Your task to perform on an android device: change notification settings in the gmail app Image 0: 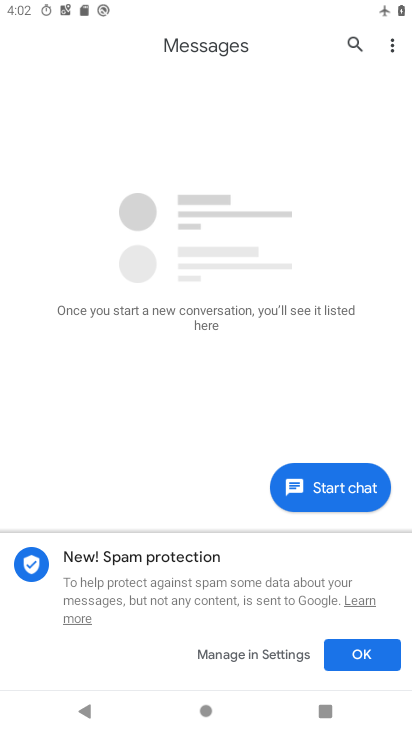
Step 0: press home button
Your task to perform on an android device: change notification settings in the gmail app Image 1: 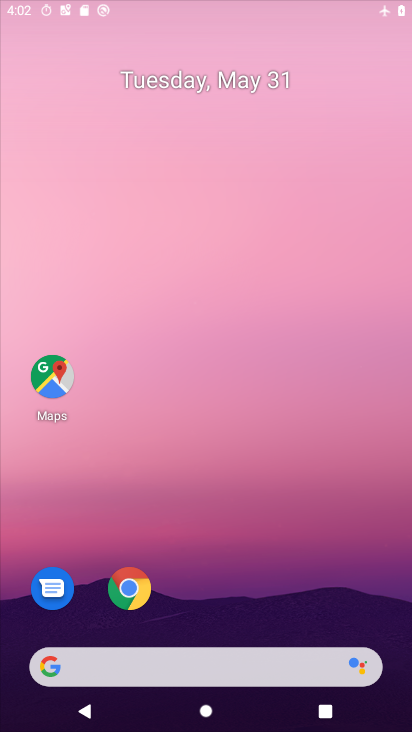
Step 1: drag from (172, 660) to (172, 361)
Your task to perform on an android device: change notification settings in the gmail app Image 2: 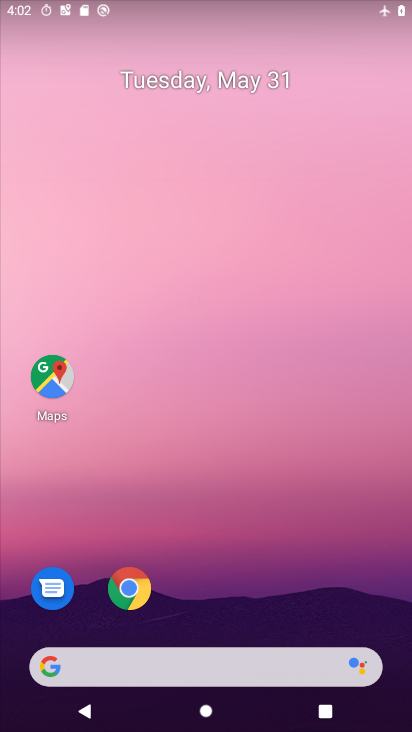
Step 2: drag from (266, 679) to (171, 94)
Your task to perform on an android device: change notification settings in the gmail app Image 3: 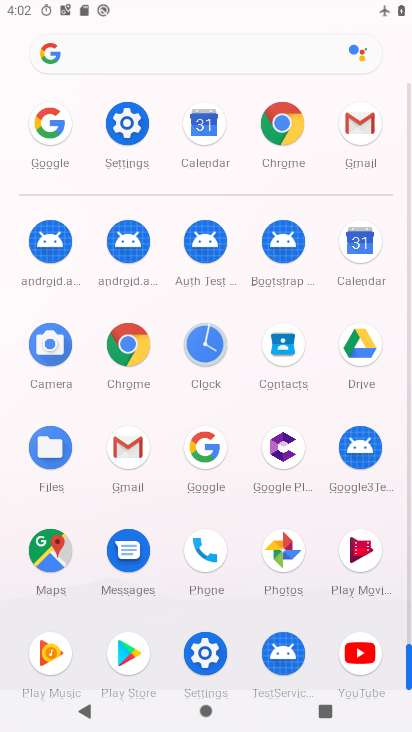
Step 3: drag from (190, 478) to (183, 267)
Your task to perform on an android device: change notification settings in the gmail app Image 4: 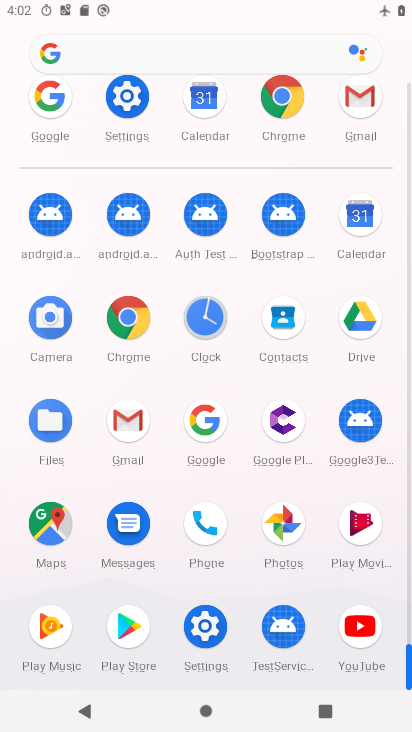
Step 4: click (121, 443)
Your task to perform on an android device: change notification settings in the gmail app Image 5: 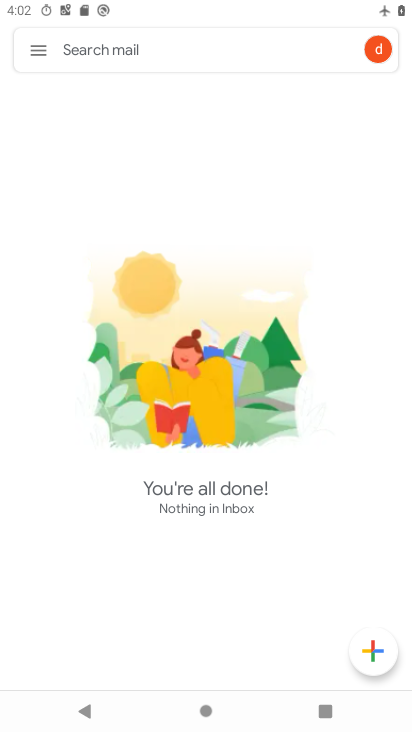
Step 5: click (39, 54)
Your task to perform on an android device: change notification settings in the gmail app Image 6: 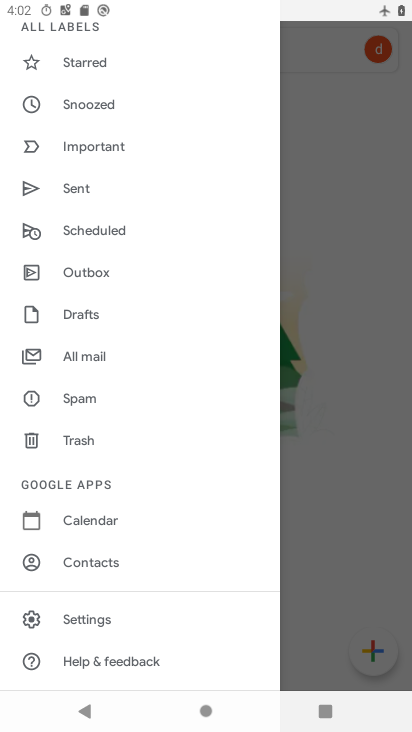
Step 6: click (98, 618)
Your task to perform on an android device: change notification settings in the gmail app Image 7: 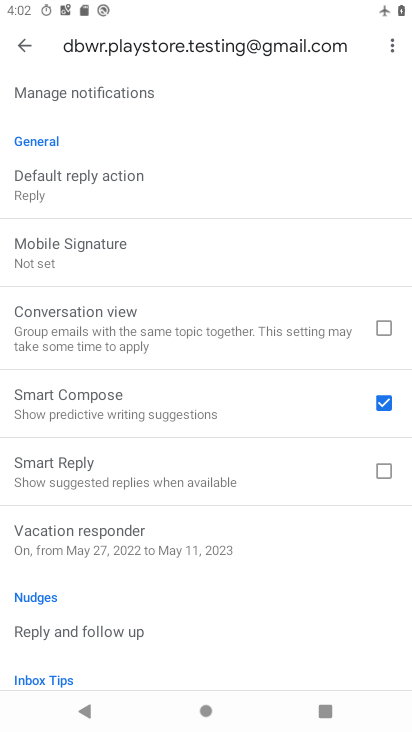
Step 7: click (29, 50)
Your task to perform on an android device: change notification settings in the gmail app Image 8: 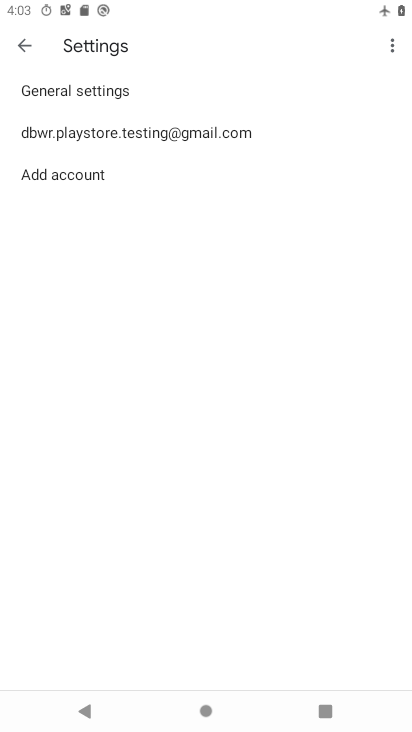
Step 8: click (86, 88)
Your task to perform on an android device: change notification settings in the gmail app Image 9: 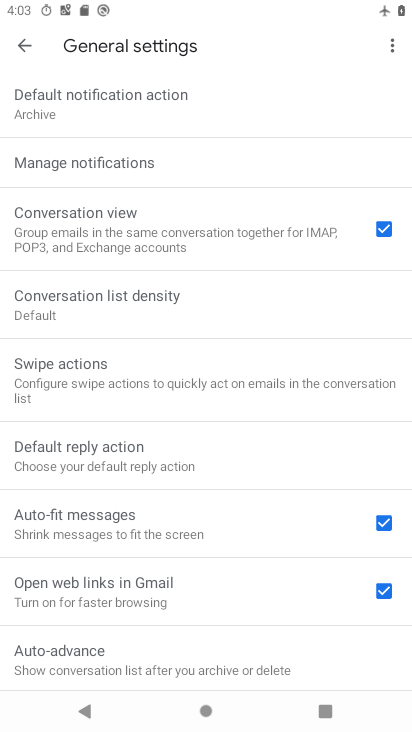
Step 9: click (81, 157)
Your task to perform on an android device: change notification settings in the gmail app Image 10: 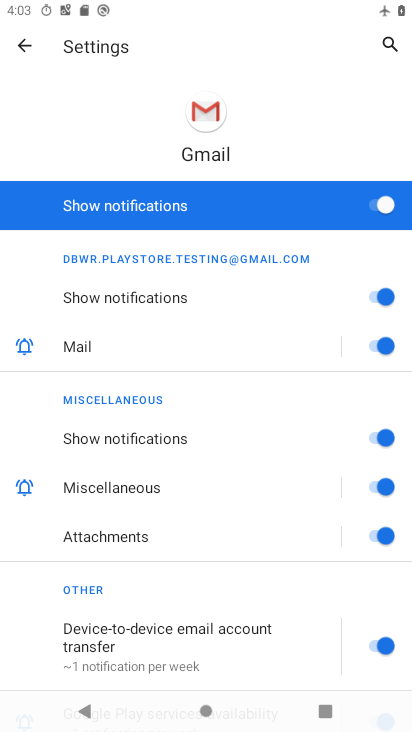
Step 10: click (370, 202)
Your task to perform on an android device: change notification settings in the gmail app Image 11: 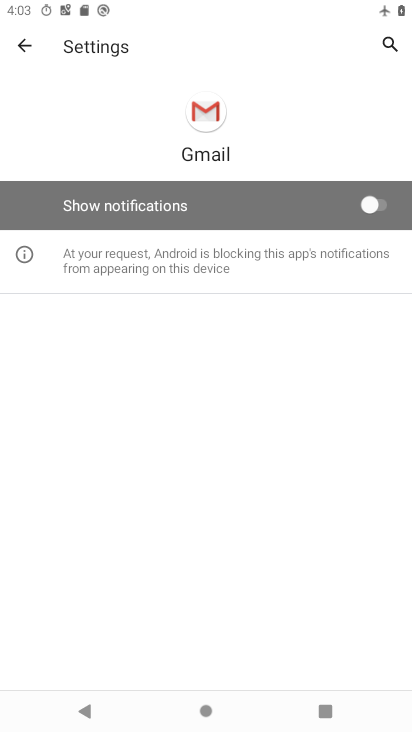
Step 11: task complete